Your task to perform on an android device: change the clock display to show seconds Image 0: 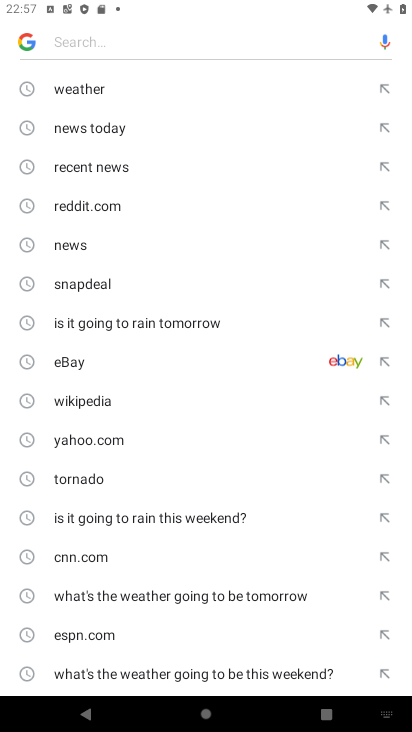
Step 0: press home button
Your task to perform on an android device: change the clock display to show seconds Image 1: 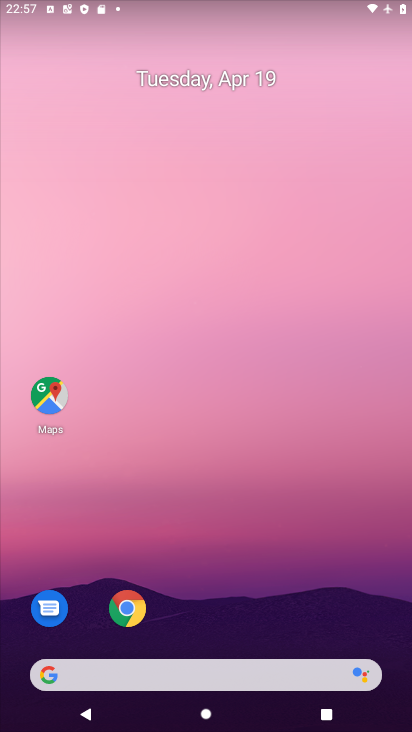
Step 1: drag from (366, 612) to (303, 195)
Your task to perform on an android device: change the clock display to show seconds Image 2: 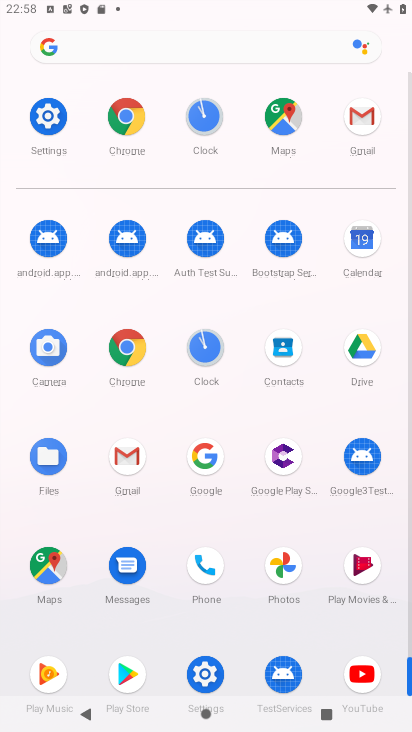
Step 2: click (205, 348)
Your task to perform on an android device: change the clock display to show seconds Image 3: 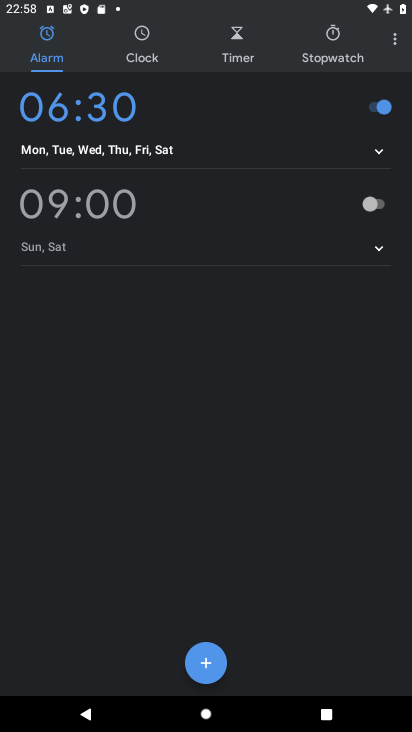
Step 3: click (392, 39)
Your task to perform on an android device: change the clock display to show seconds Image 4: 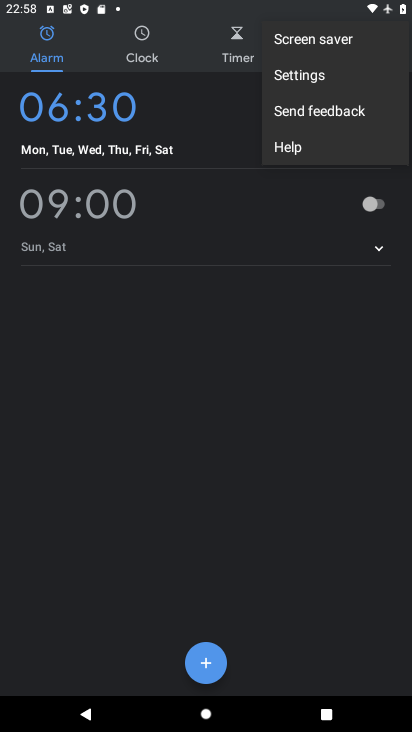
Step 4: click (302, 73)
Your task to perform on an android device: change the clock display to show seconds Image 5: 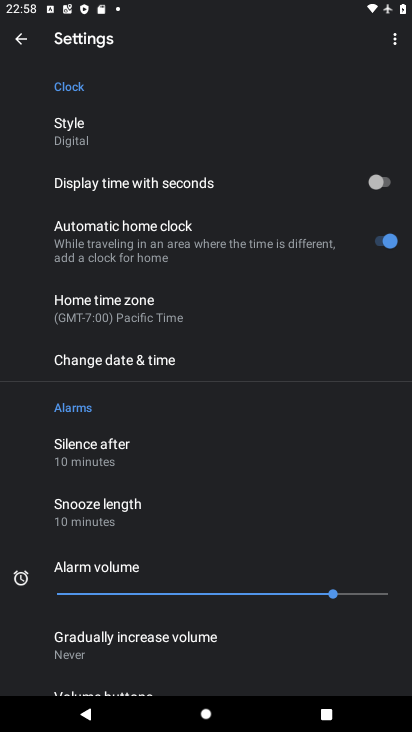
Step 5: click (381, 180)
Your task to perform on an android device: change the clock display to show seconds Image 6: 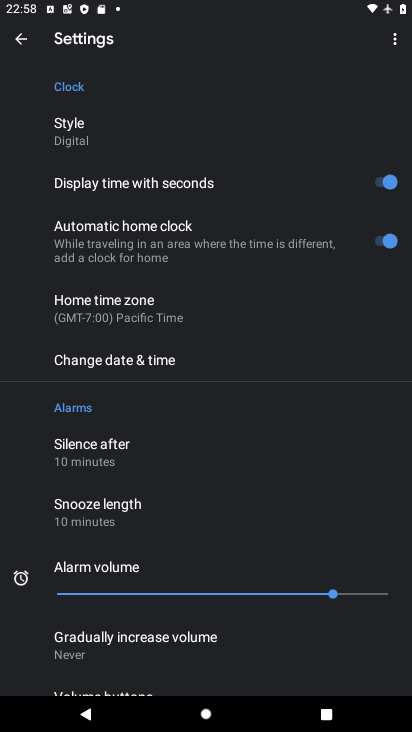
Step 6: task complete